Your task to perform on an android device: turn off improve location accuracy Image 0: 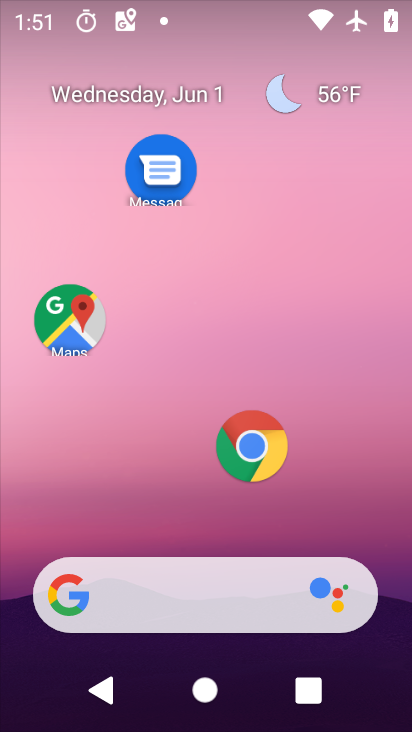
Step 0: drag from (146, 509) to (307, 7)
Your task to perform on an android device: turn off improve location accuracy Image 1: 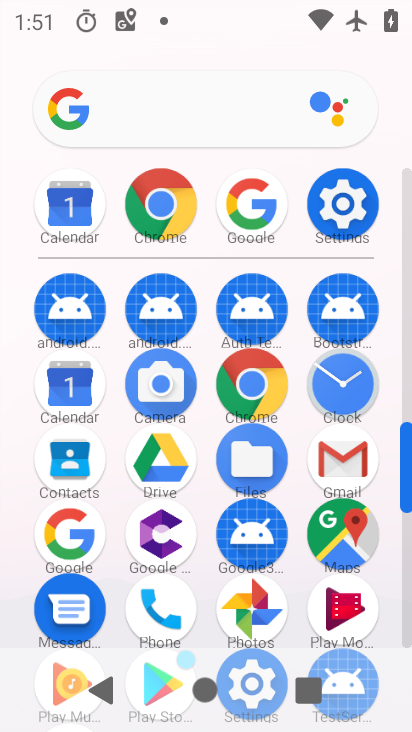
Step 1: drag from (201, 273) to (225, 101)
Your task to perform on an android device: turn off improve location accuracy Image 2: 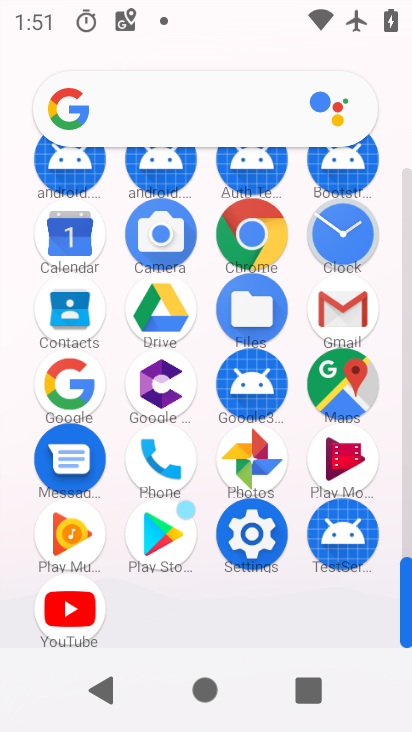
Step 2: click (244, 544)
Your task to perform on an android device: turn off improve location accuracy Image 3: 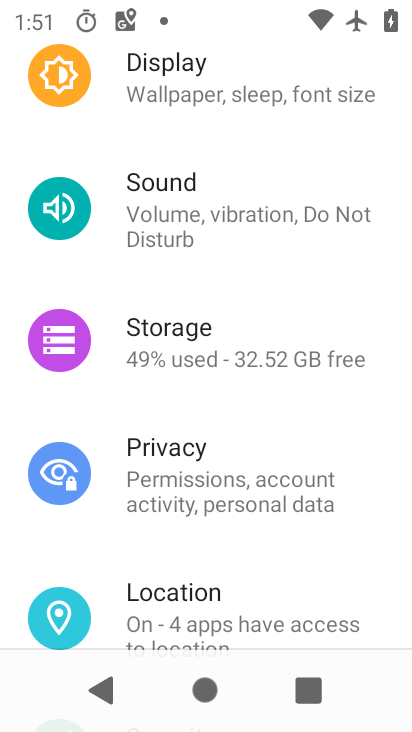
Step 3: click (201, 608)
Your task to perform on an android device: turn off improve location accuracy Image 4: 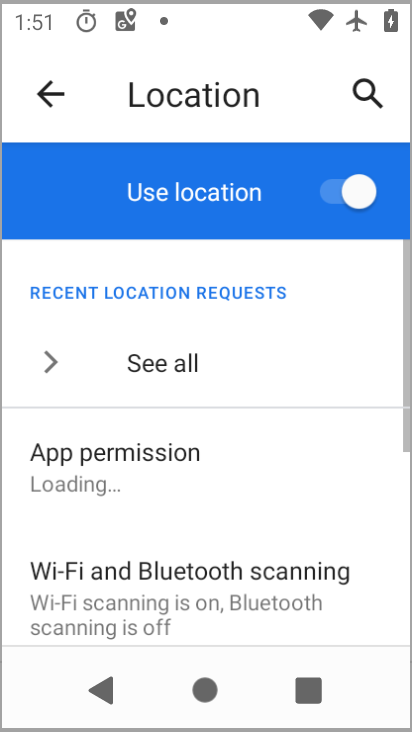
Step 4: drag from (201, 601) to (251, 101)
Your task to perform on an android device: turn off improve location accuracy Image 5: 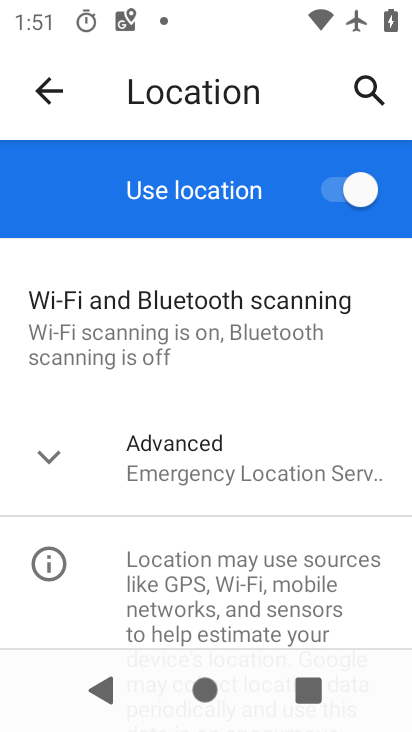
Step 5: click (155, 464)
Your task to perform on an android device: turn off improve location accuracy Image 6: 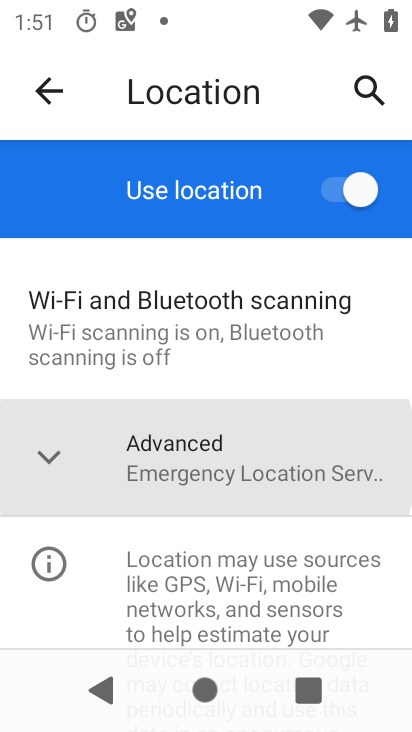
Step 6: drag from (154, 440) to (167, 177)
Your task to perform on an android device: turn off improve location accuracy Image 7: 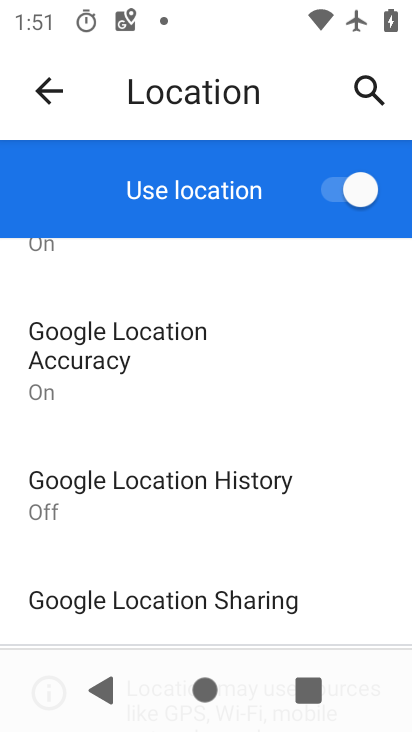
Step 7: drag from (191, 570) to (235, 348)
Your task to perform on an android device: turn off improve location accuracy Image 8: 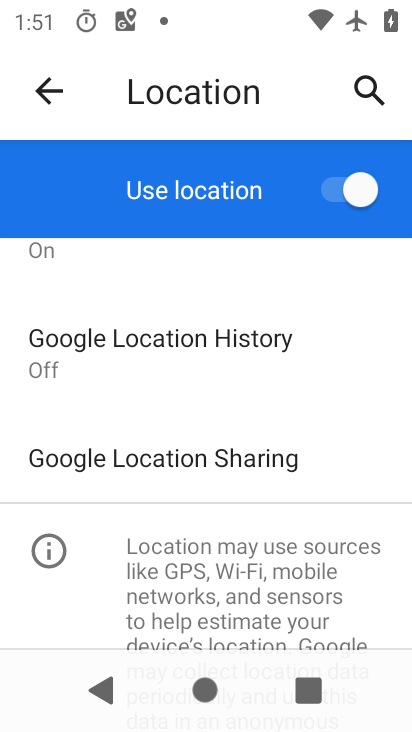
Step 8: drag from (239, 383) to (252, 577)
Your task to perform on an android device: turn off improve location accuracy Image 9: 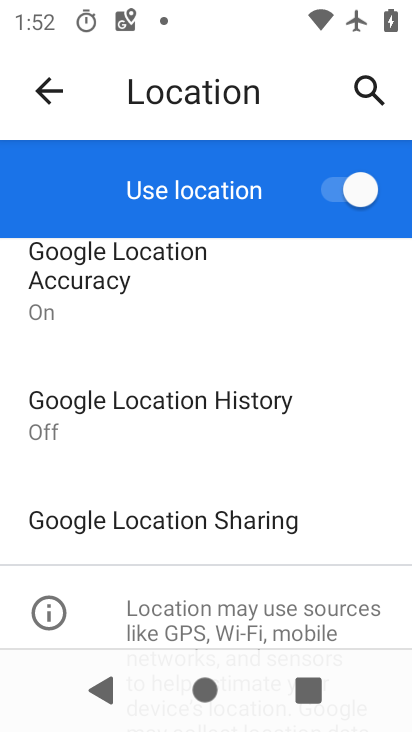
Step 9: click (216, 425)
Your task to perform on an android device: turn off improve location accuracy Image 10: 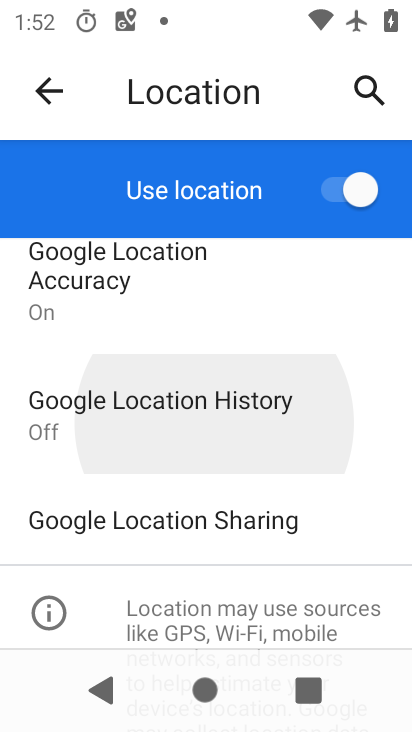
Step 10: click (284, 363)
Your task to perform on an android device: turn off improve location accuracy Image 11: 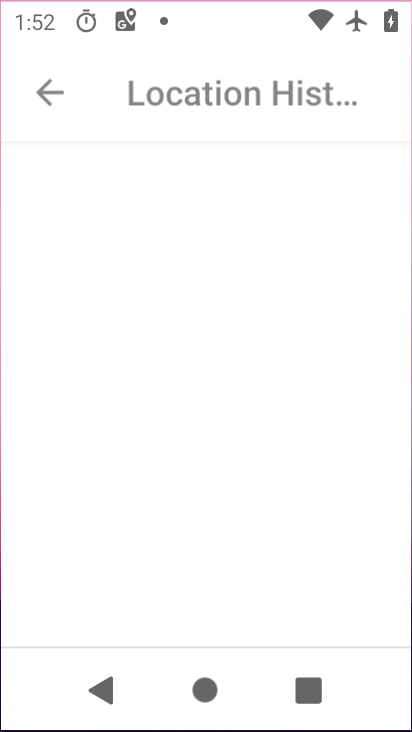
Step 11: click (284, 363)
Your task to perform on an android device: turn off improve location accuracy Image 12: 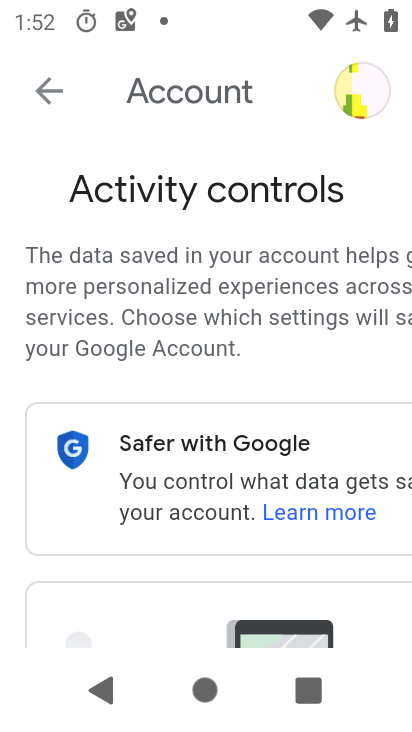
Step 12: press back button
Your task to perform on an android device: turn off improve location accuracy Image 13: 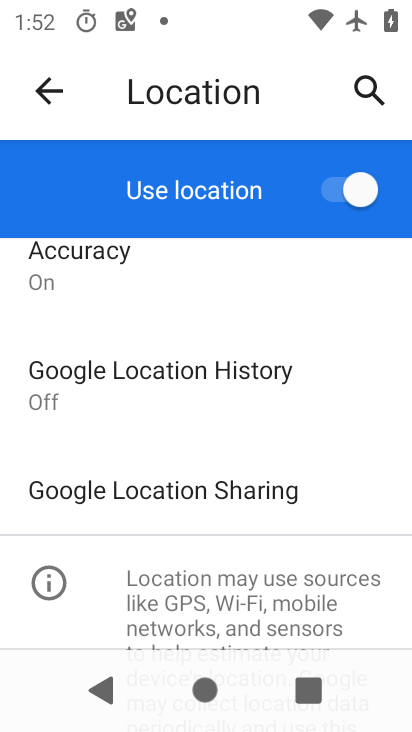
Step 13: drag from (203, 308) to (173, 534)
Your task to perform on an android device: turn off improve location accuracy Image 14: 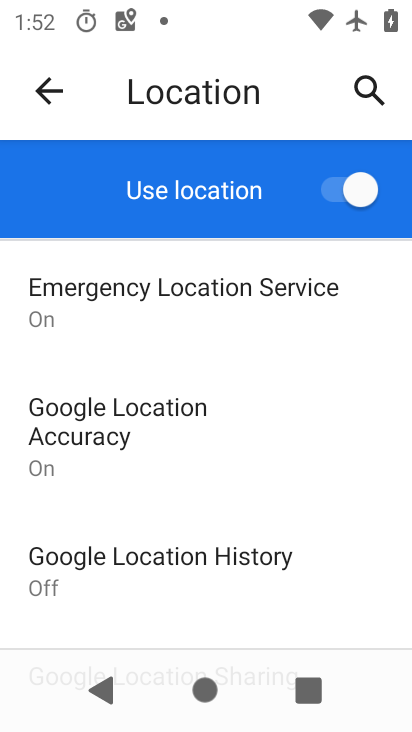
Step 14: click (132, 424)
Your task to perform on an android device: turn off improve location accuracy Image 15: 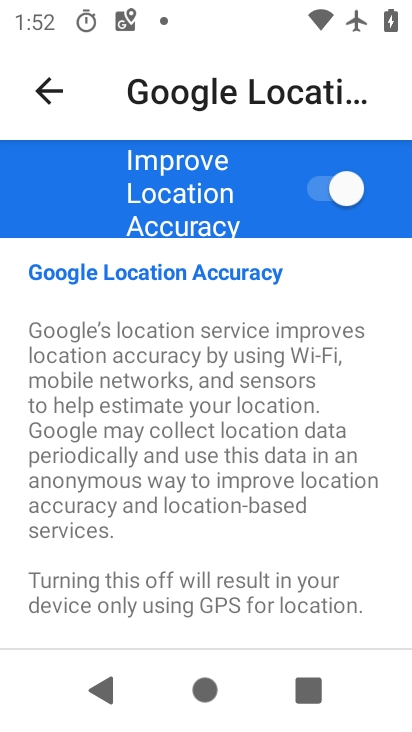
Step 15: click (357, 191)
Your task to perform on an android device: turn off improve location accuracy Image 16: 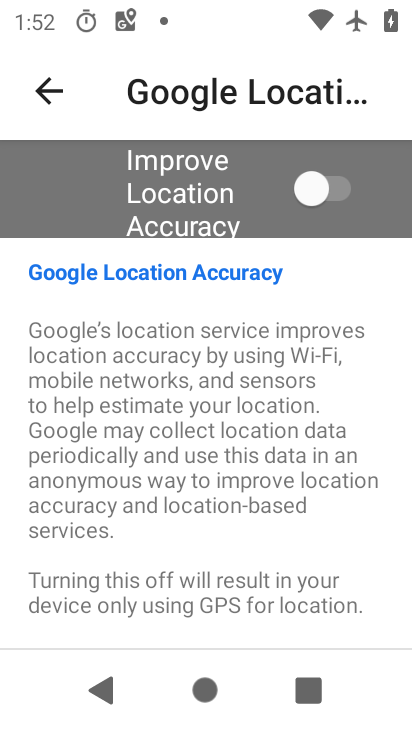
Step 16: task complete